Your task to perform on an android device: turn on the 12-hour format for clock Image 0: 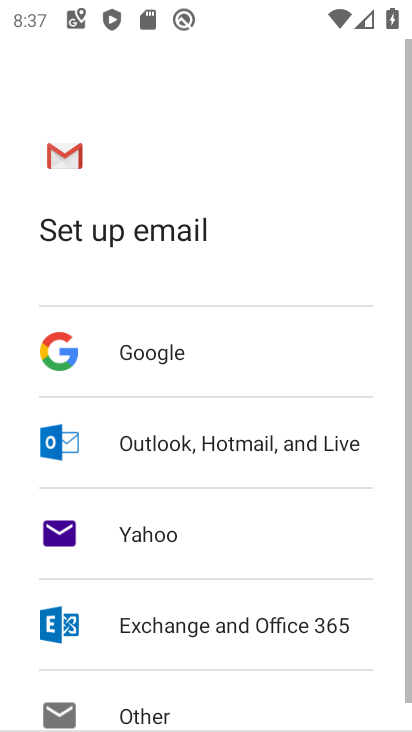
Step 0: press home button
Your task to perform on an android device: turn on the 12-hour format for clock Image 1: 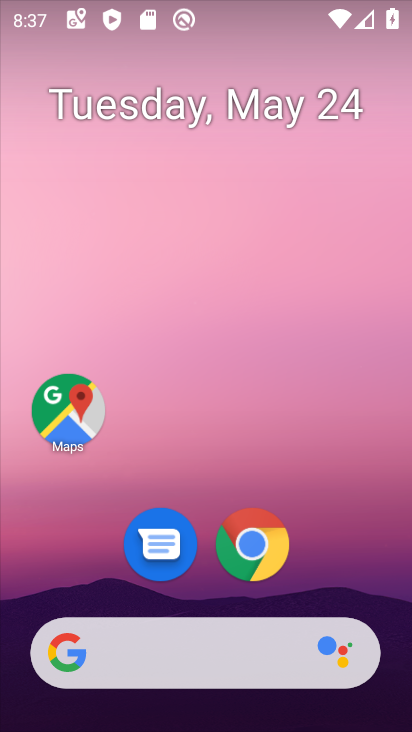
Step 1: drag from (388, 602) to (342, 264)
Your task to perform on an android device: turn on the 12-hour format for clock Image 2: 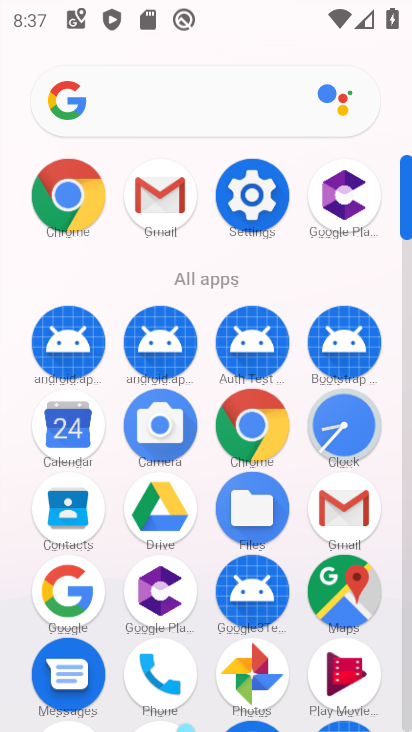
Step 2: click (352, 432)
Your task to perform on an android device: turn on the 12-hour format for clock Image 3: 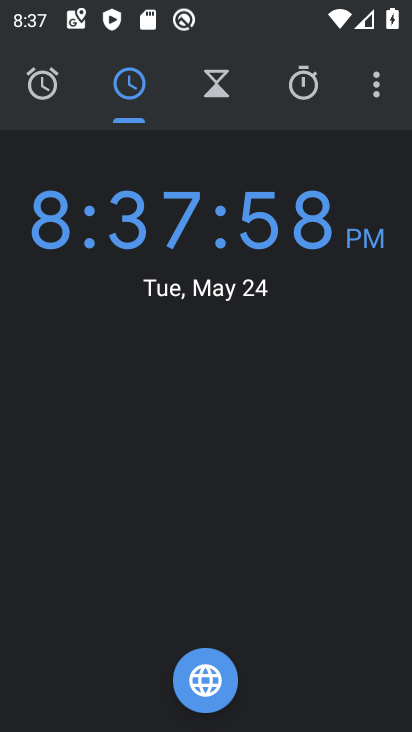
Step 3: click (385, 84)
Your task to perform on an android device: turn on the 12-hour format for clock Image 4: 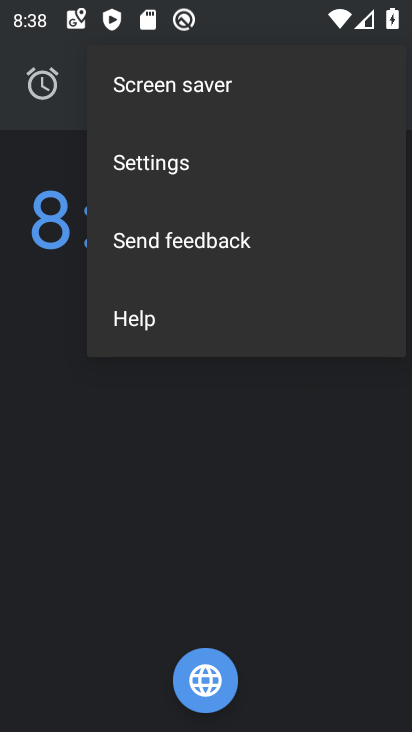
Step 4: click (196, 171)
Your task to perform on an android device: turn on the 12-hour format for clock Image 5: 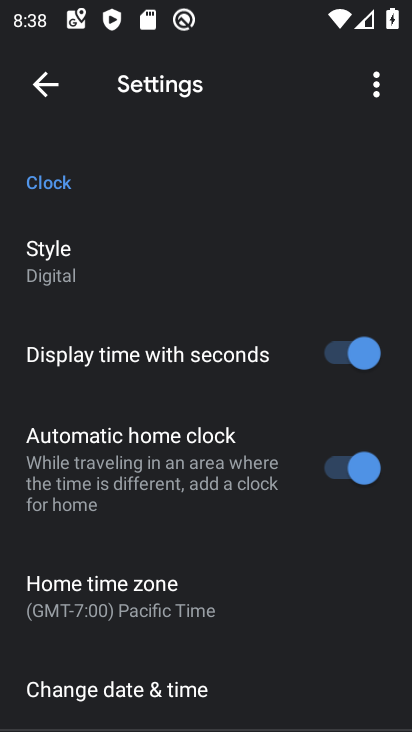
Step 5: click (255, 693)
Your task to perform on an android device: turn on the 12-hour format for clock Image 6: 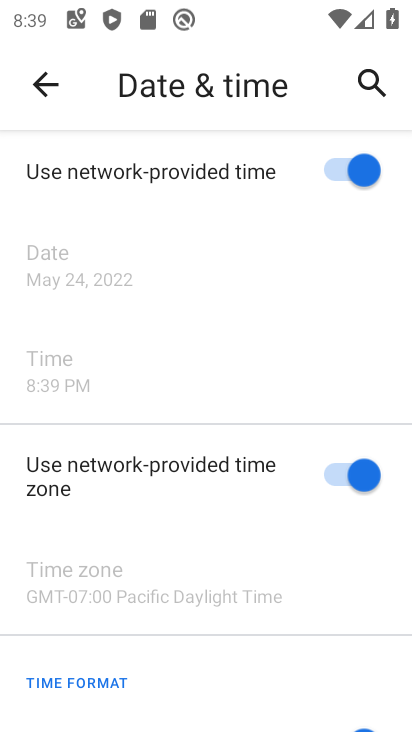
Step 6: task complete